Your task to perform on an android device: Go to CNN.com Image 0: 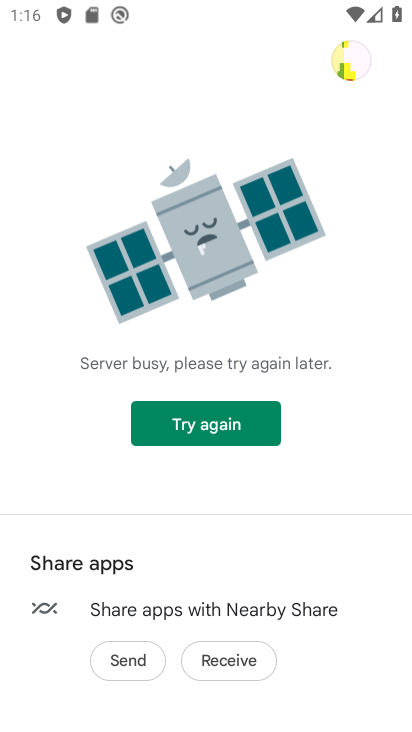
Step 0: press home button
Your task to perform on an android device: Go to CNN.com Image 1: 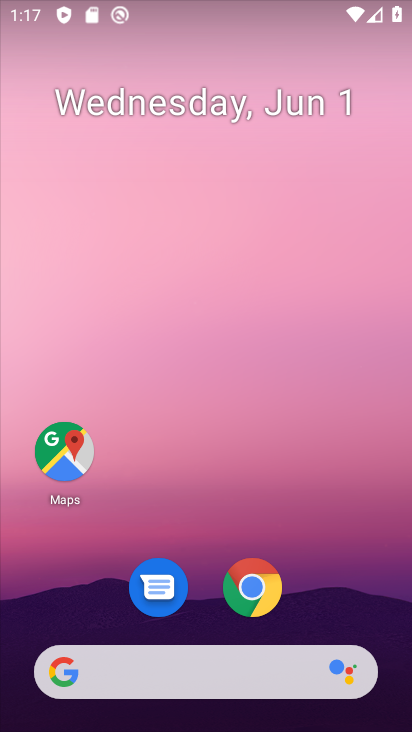
Step 1: click (248, 588)
Your task to perform on an android device: Go to CNN.com Image 2: 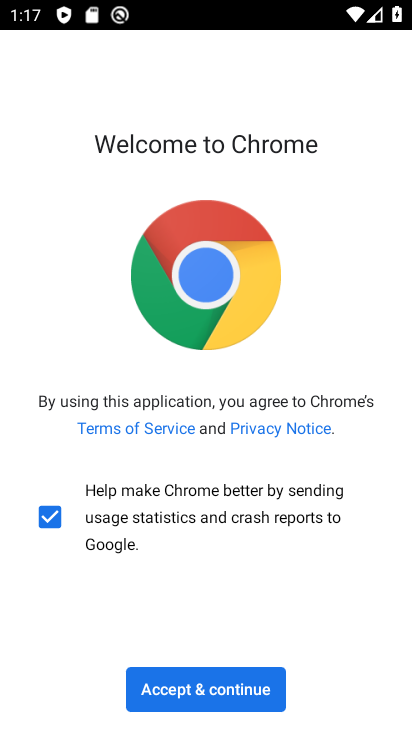
Step 2: click (209, 688)
Your task to perform on an android device: Go to CNN.com Image 3: 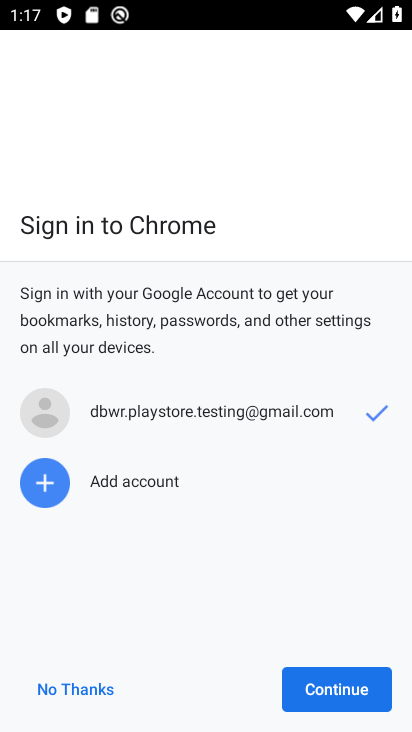
Step 3: click (345, 695)
Your task to perform on an android device: Go to CNN.com Image 4: 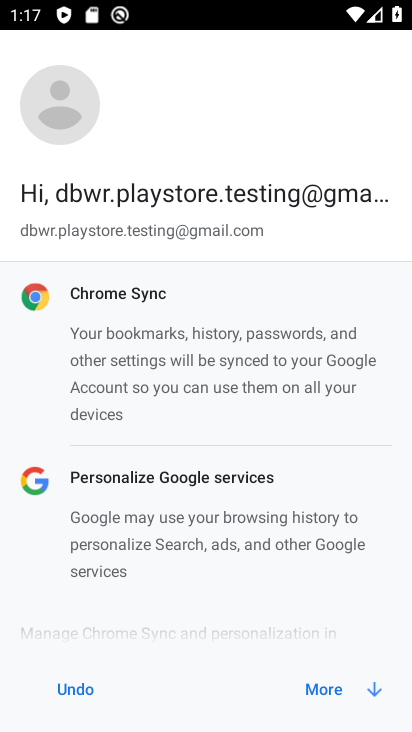
Step 4: click (325, 681)
Your task to perform on an android device: Go to CNN.com Image 5: 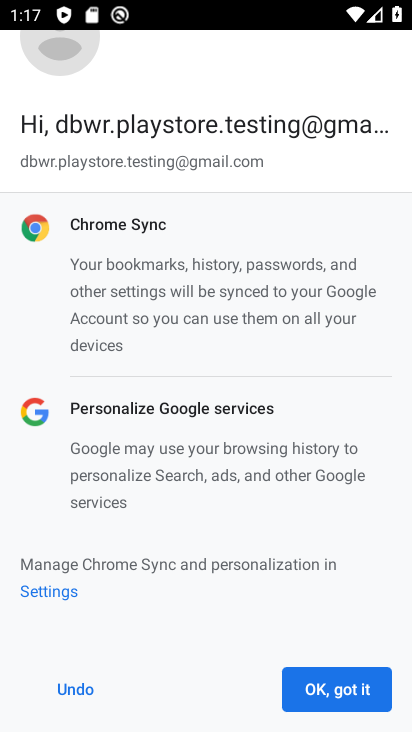
Step 5: click (342, 694)
Your task to perform on an android device: Go to CNN.com Image 6: 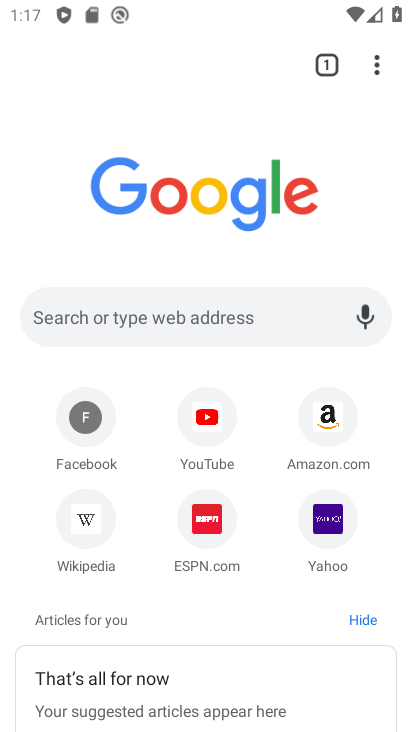
Step 6: click (196, 312)
Your task to perform on an android device: Go to CNN.com Image 7: 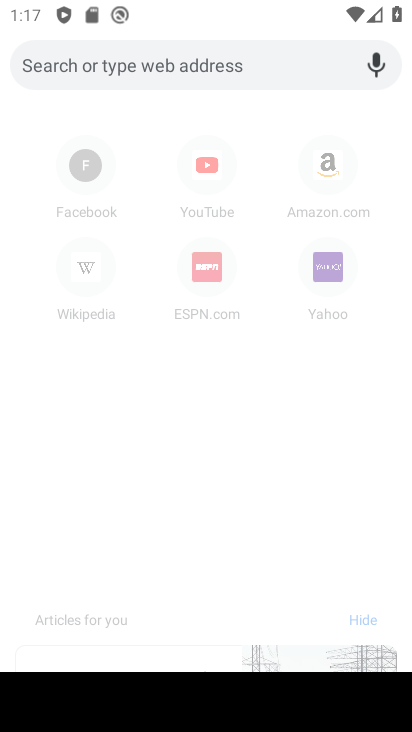
Step 7: type "cnn.com"
Your task to perform on an android device: Go to CNN.com Image 8: 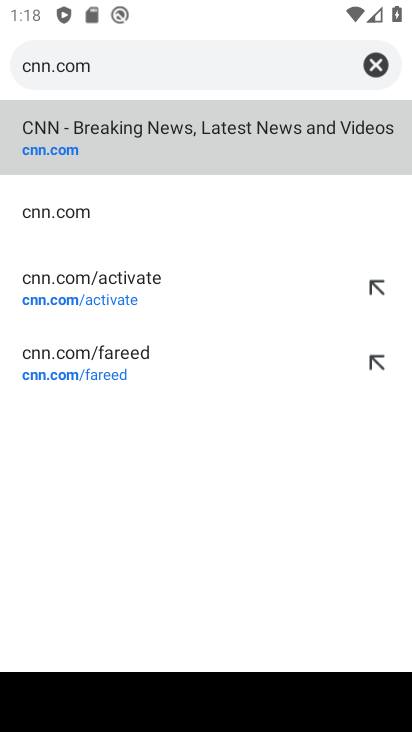
Step 8: click (96, 131)
Your task to perform on an android device: Go to CNN.com Image 9: 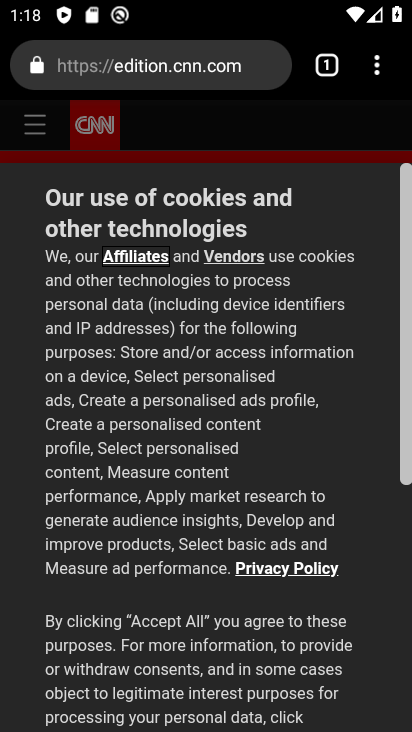
Step 9: task complete